Your task to perform on an android device: toggle pop-ups in chrome Image 0: 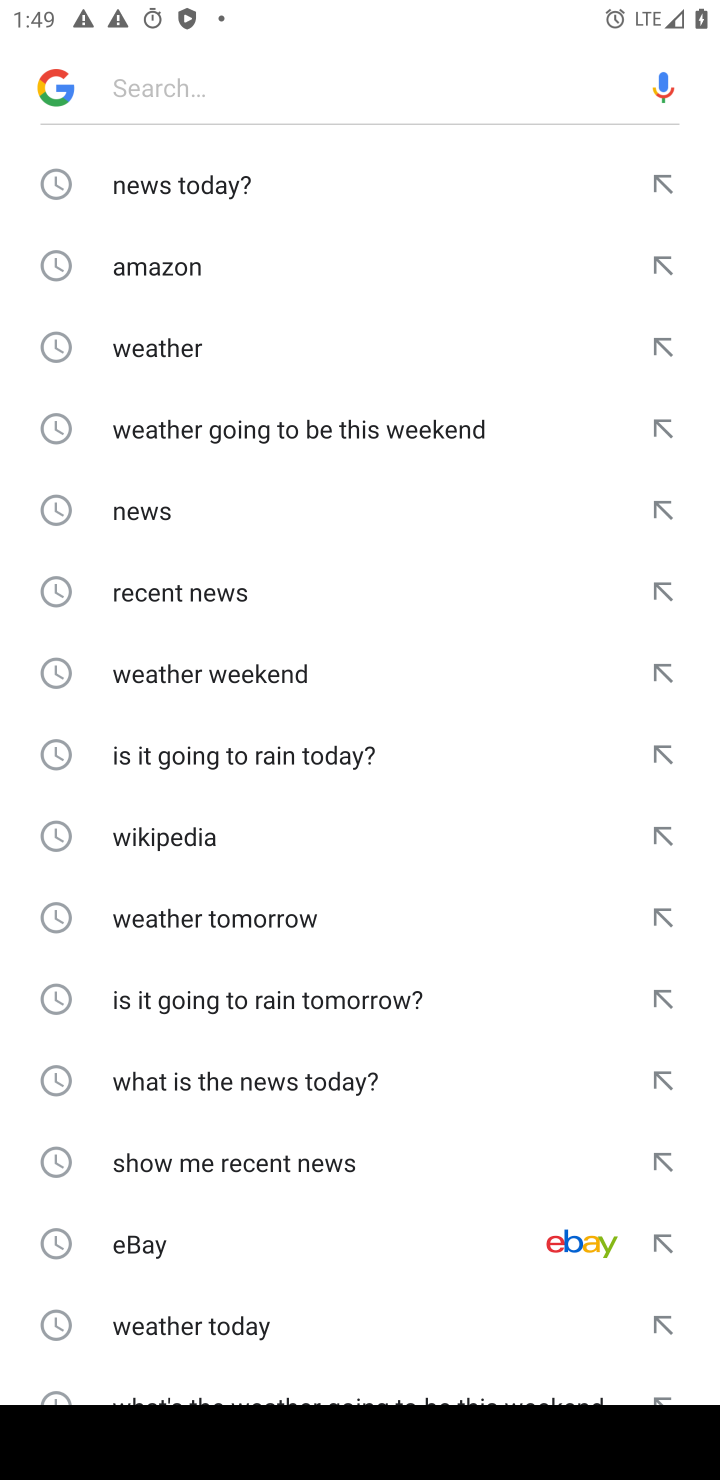
Step 0: press home button
Your task to perform on an android device: toggle pop-ups in chrome Image 1: 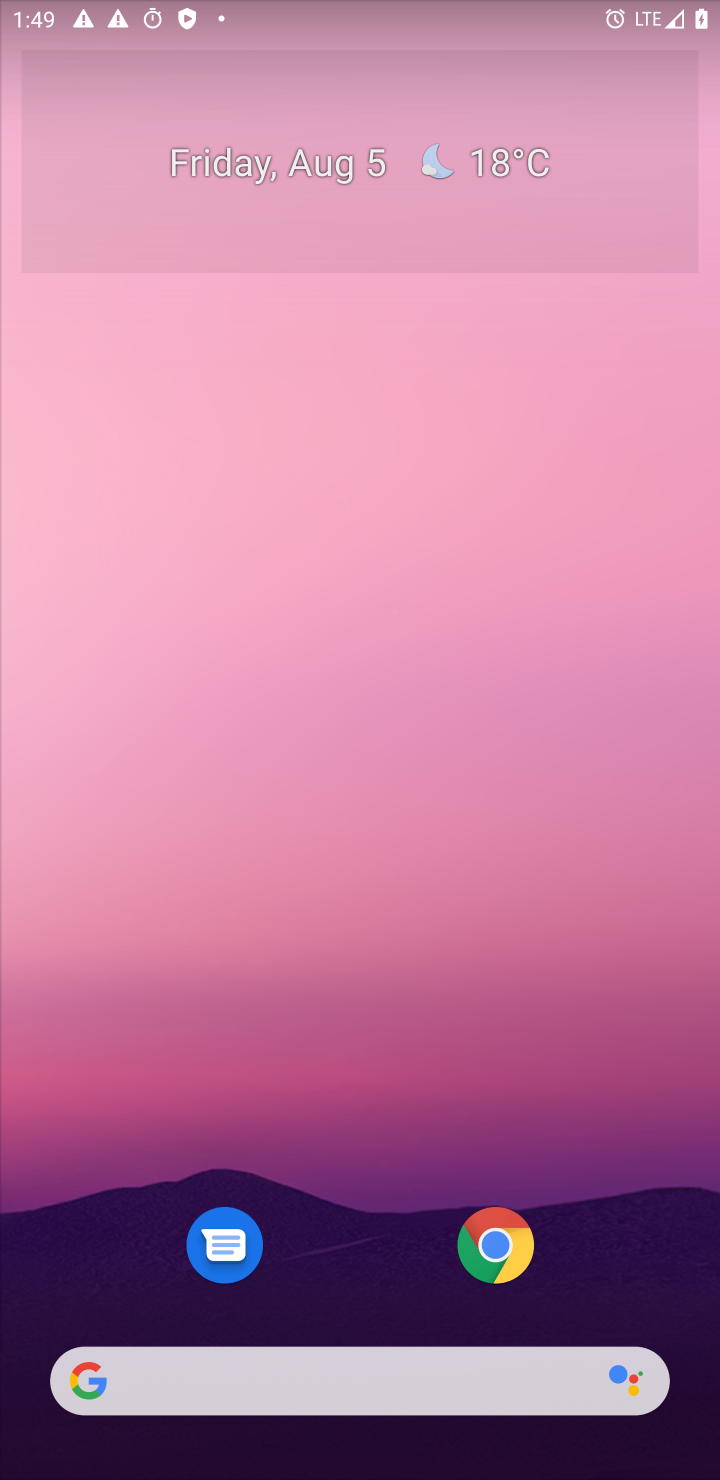
Step 1: drag from (372, 641) to (372, 442)
Your task to perform on an android device: toggle pop-ups in chrome Image 2: 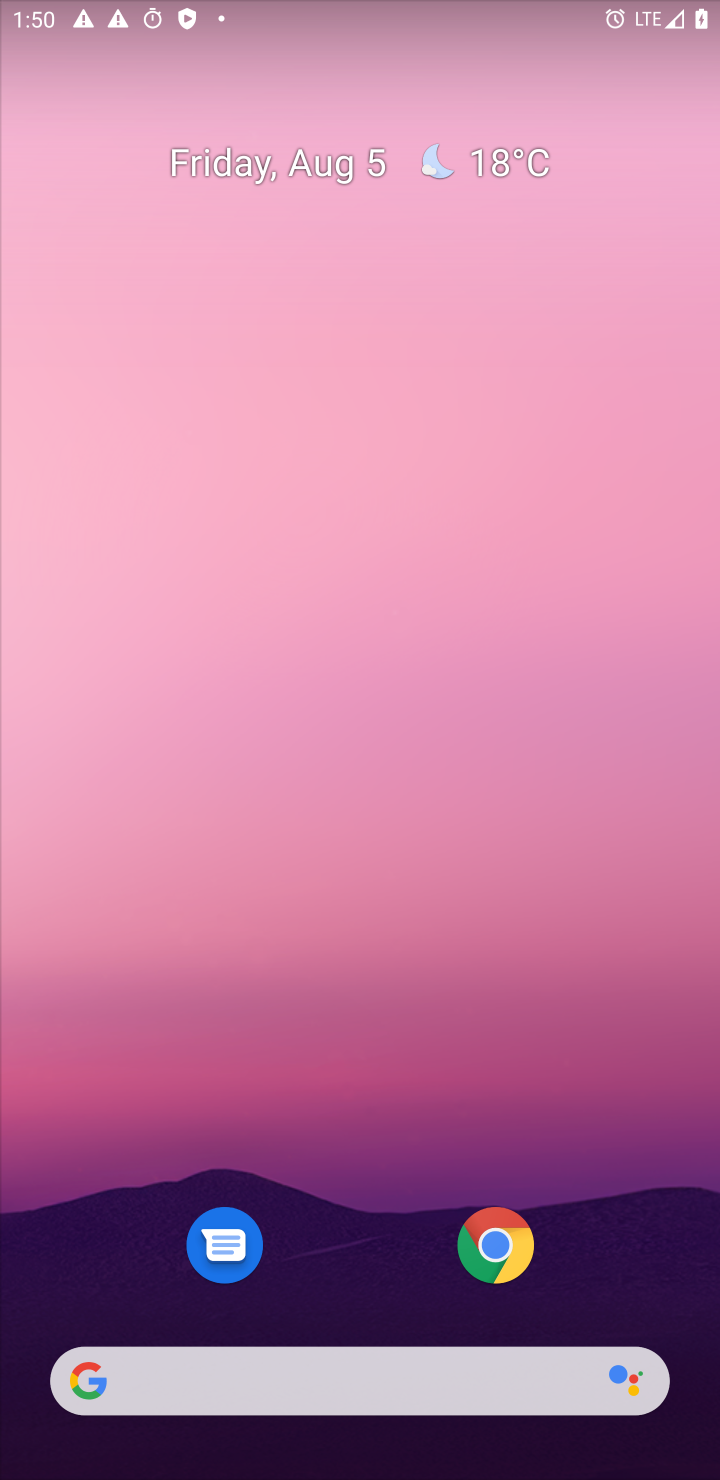
Step 2: drag from (395, 1287) to (679, 245)
Your task to perform on an android device: toggle pop-ups in chrome Image 3: 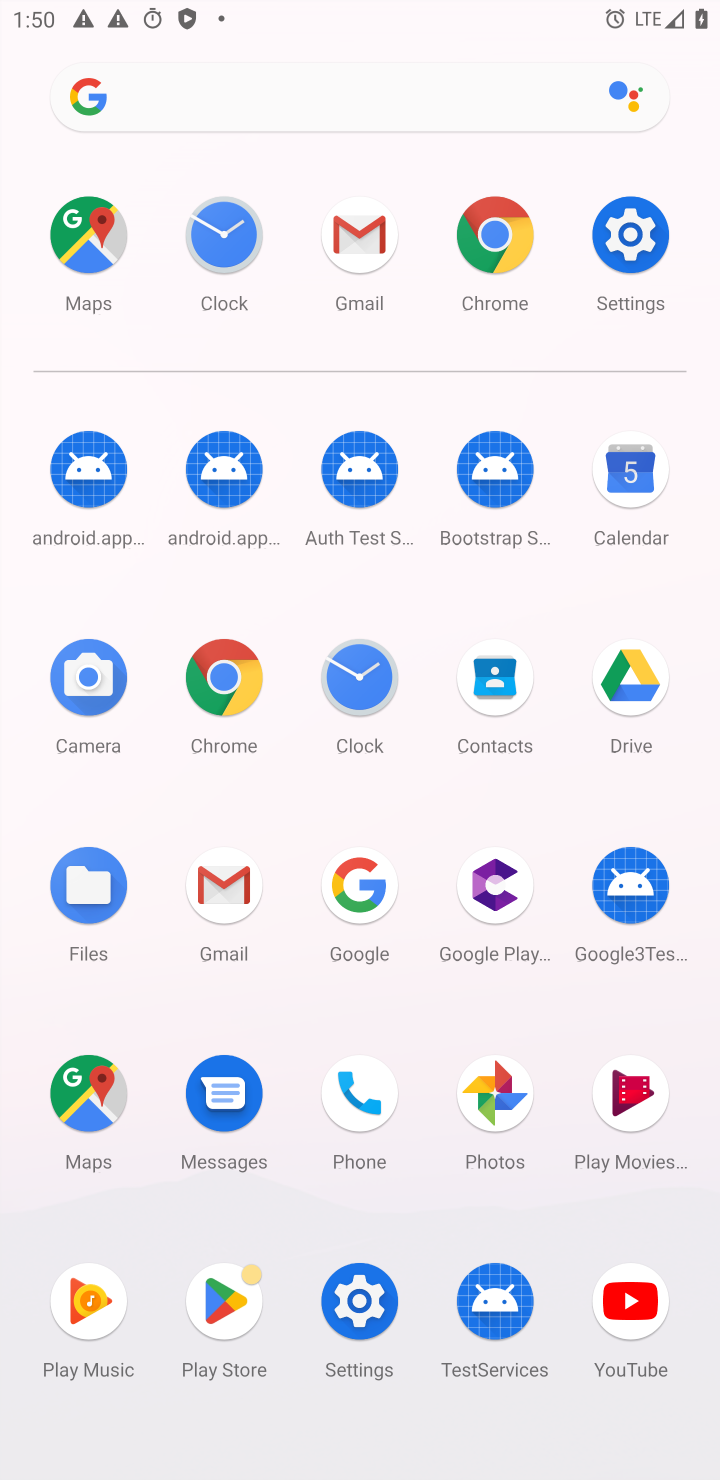
Step 3: click (501, 260)
Your task to perform on an android device: toggle pop-ups in chrome Image 4: 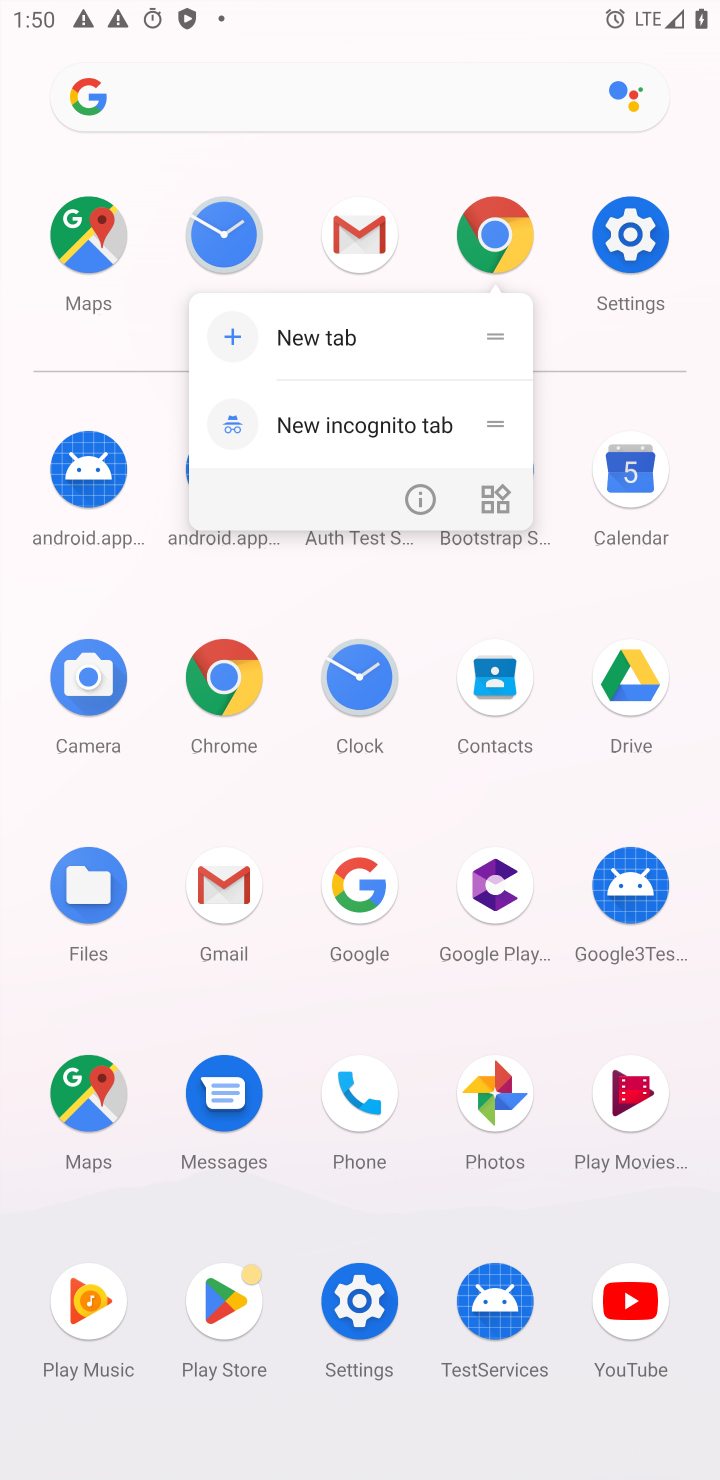
Step 4: click (501, 260)
Your task to perform on an android device: toggle pop-ups in chrome Image 5: 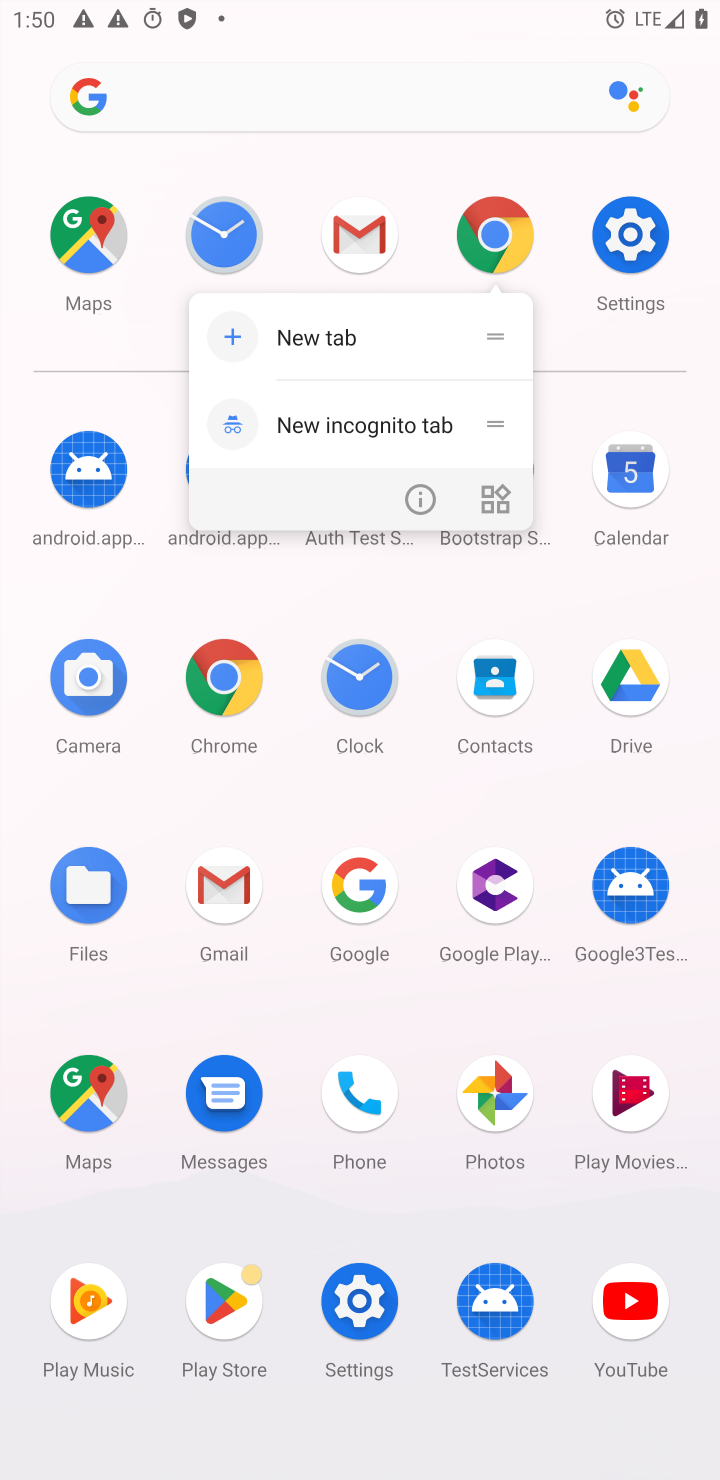
Step 5: click (479, 226)
Your task to perform on an android device: toggle pop-ups in chrome Image 6: 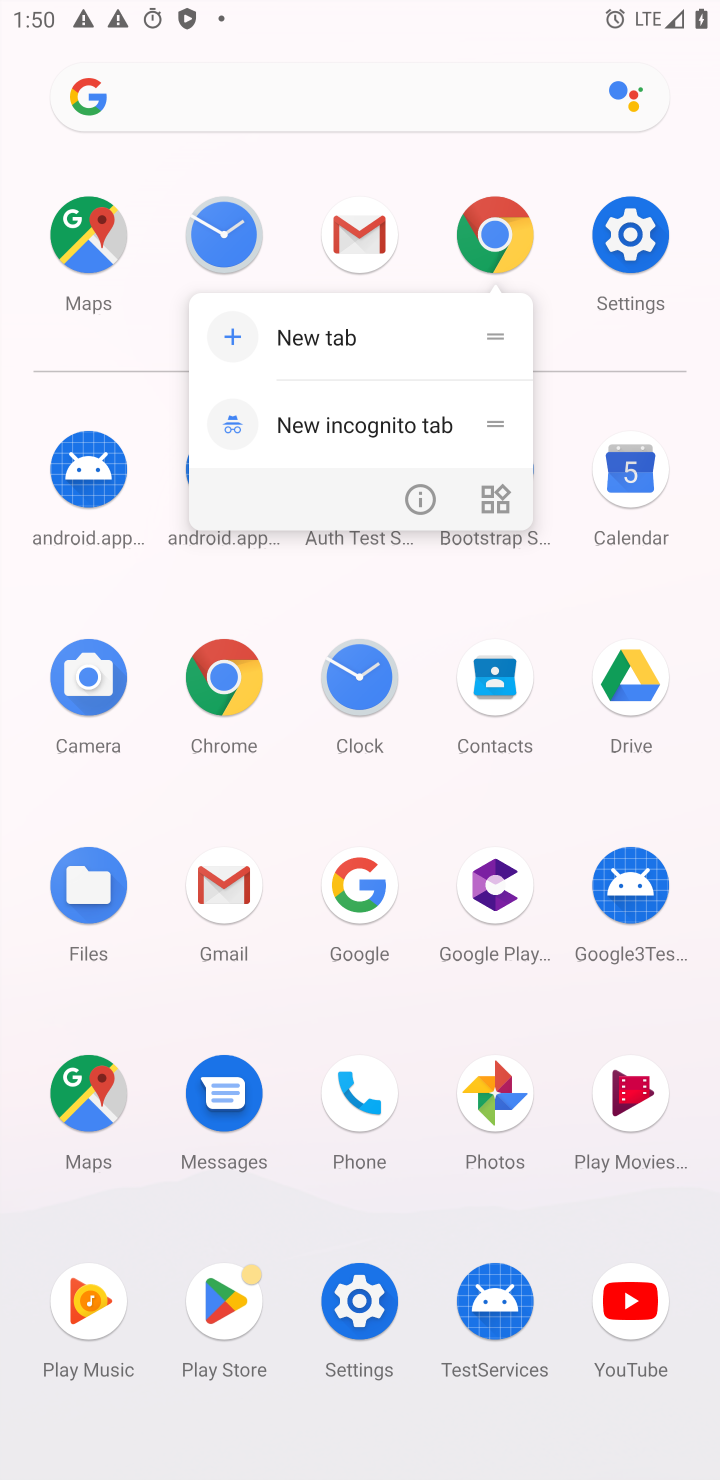
Step 6: click (479, 226)
Your task to perform on an android device: toggle pop-ups in chrome Image 7: 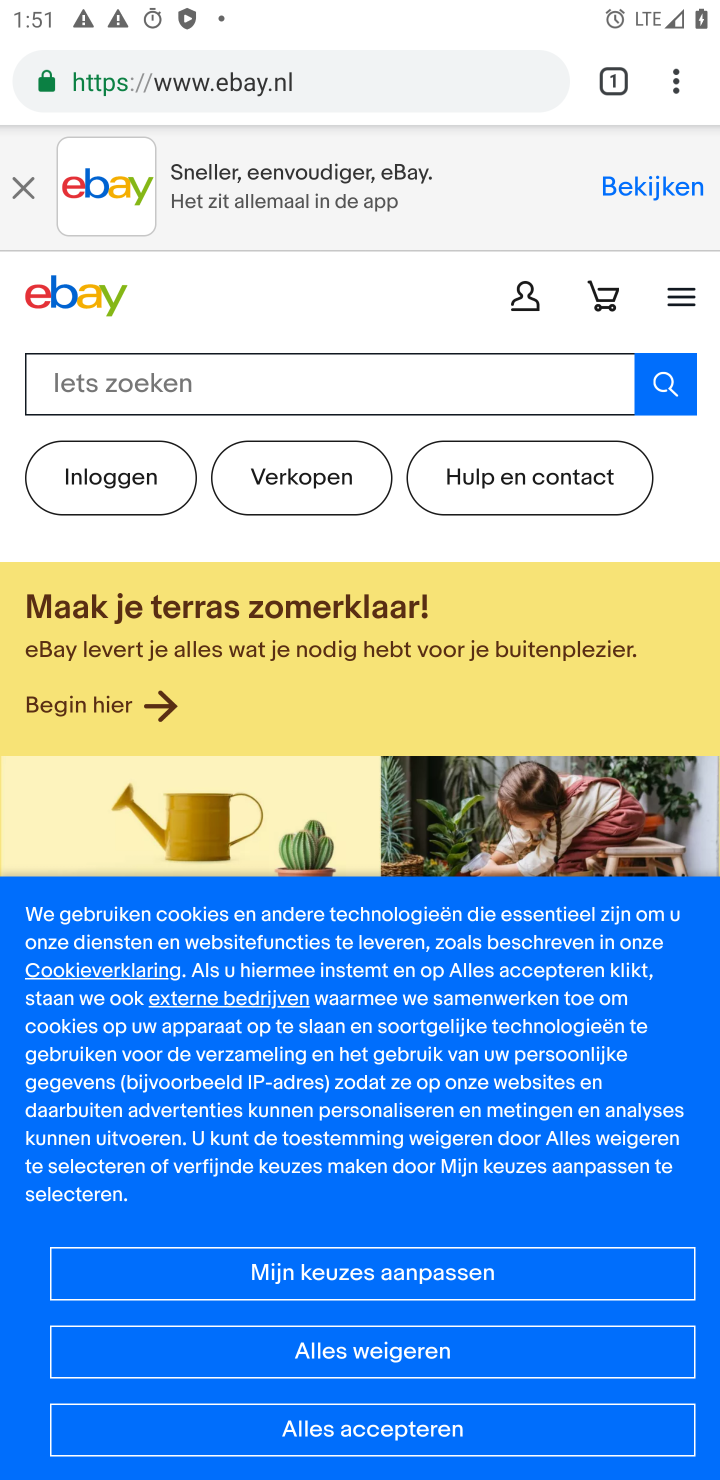
Step 7: click (673, 77)
Your task to perform on an android device: toggle pop-ups in chrome Image 8: 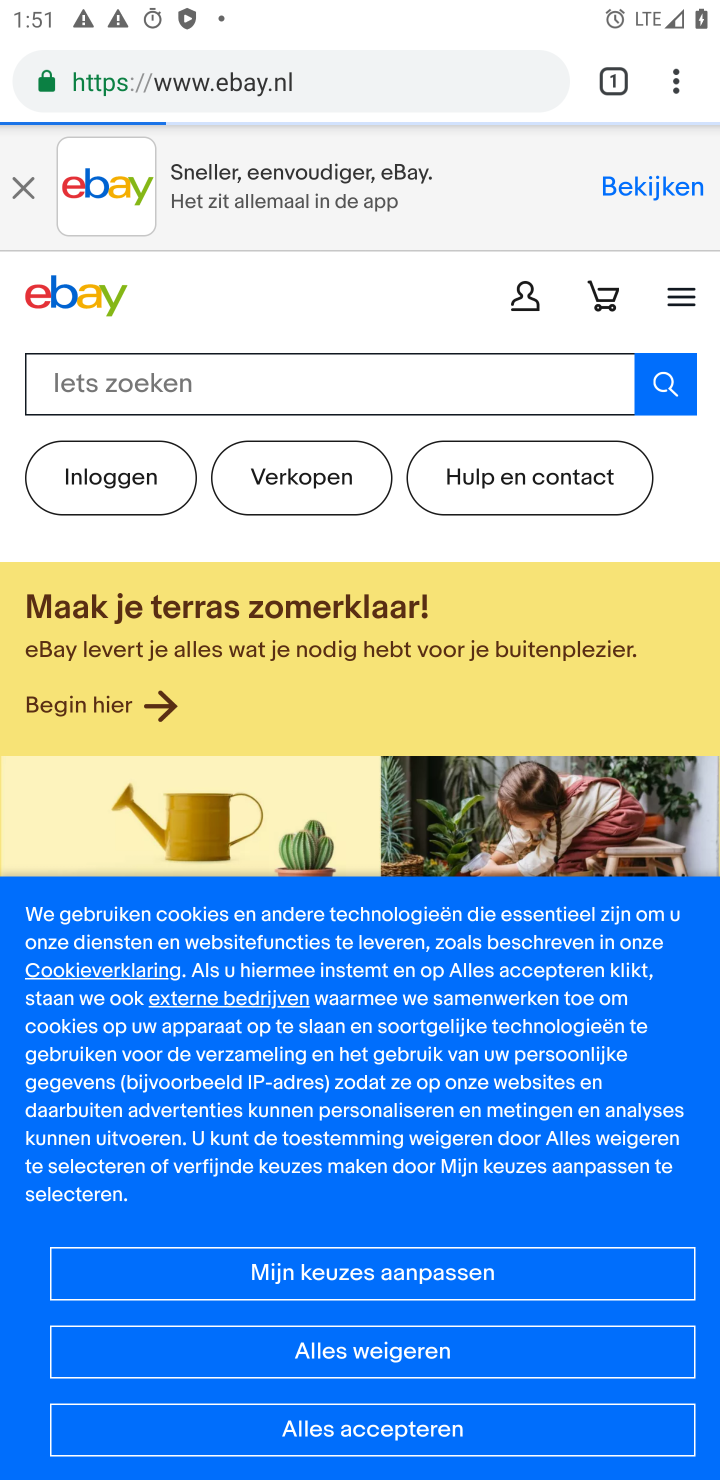
Step 8: drag from (673, 77) to (406, 1055)
Your task to perform on an android device: toggle pop-ups in chrome Image 9: 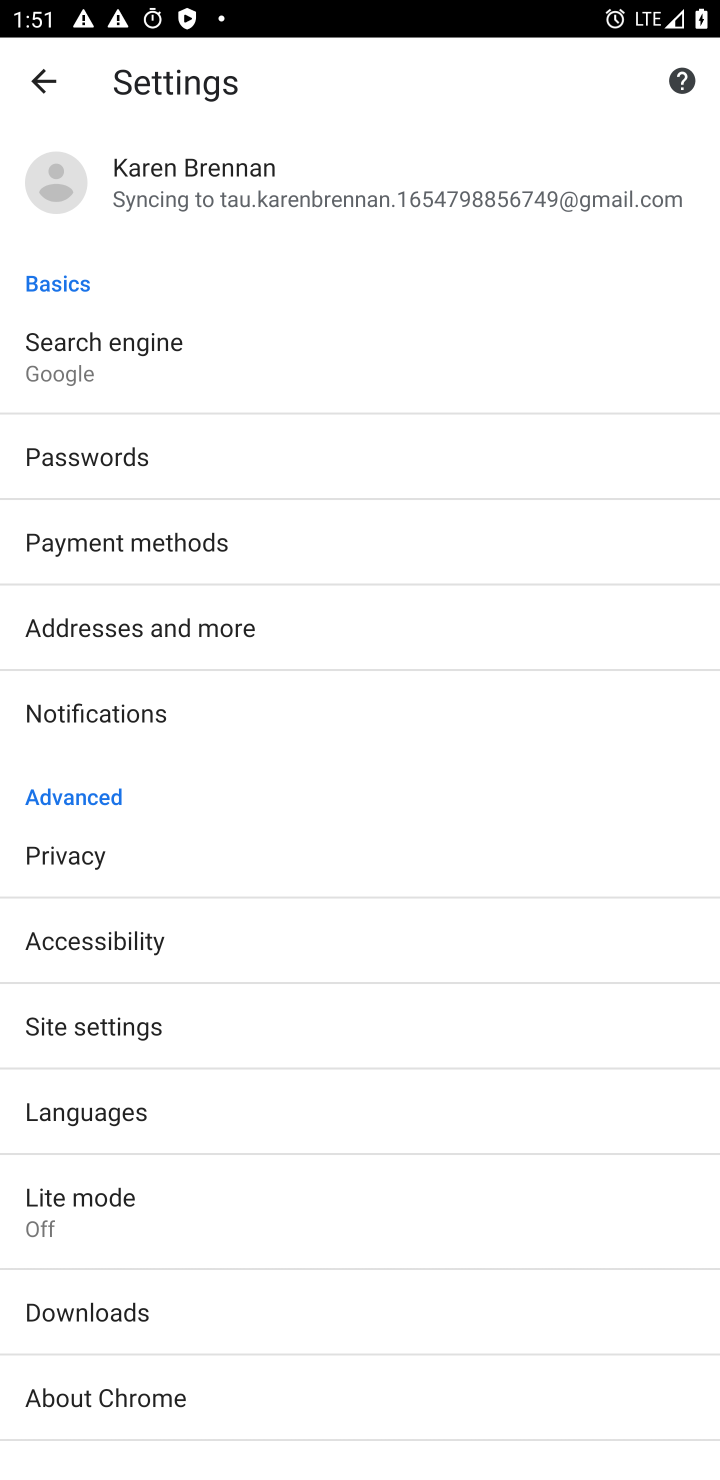
Step 9: click (85, 1037)
Your task to perform on an android device: toggle pop-ups in chrome Image 10: 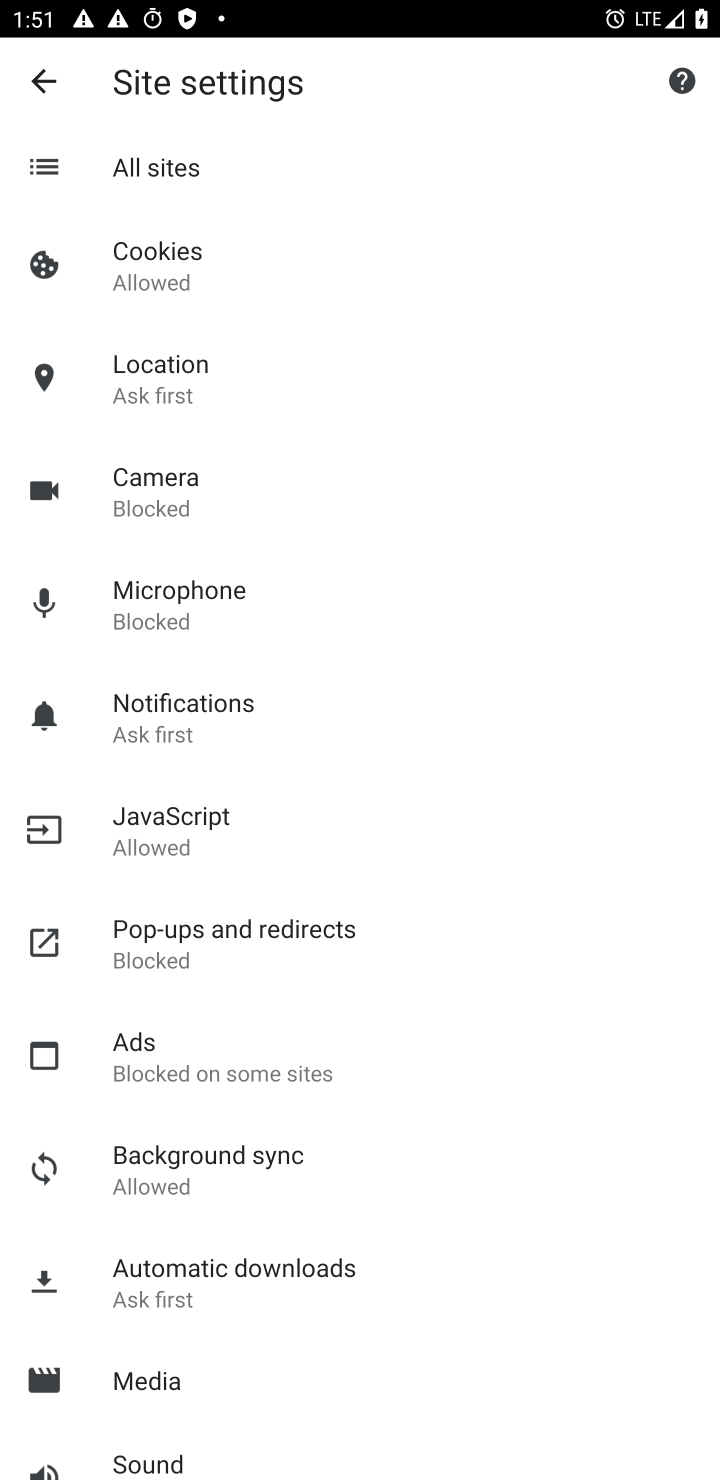
Step 10: click (159, 950)
Your task to perform on an android device: toggle pop-ups in chrome Image 11: 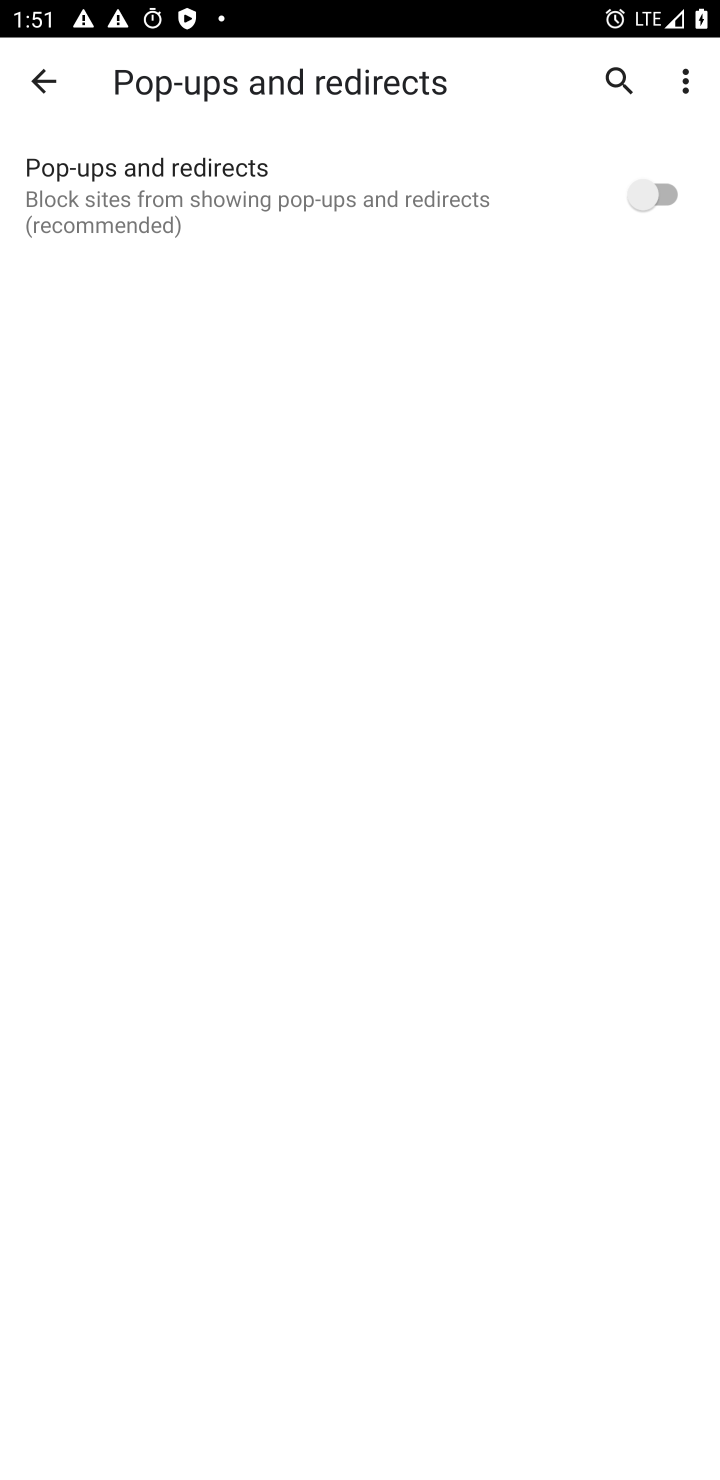
Step 11: click (654, 189)
Your task to perform on an android device: toggle pop-ups in chrome Image 12: 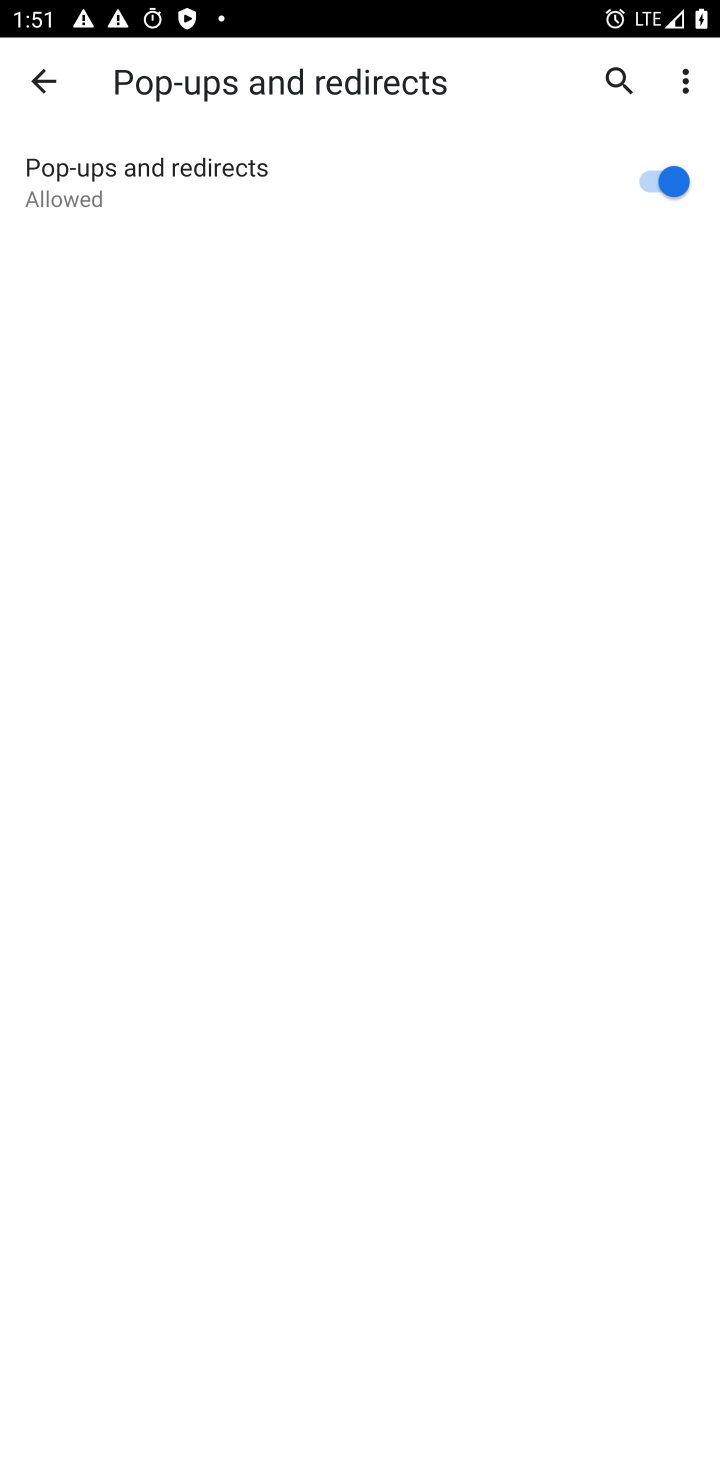
Step 12: task complete